Your task to perform on an android device: toggle javascript in the chrome app Image 0: 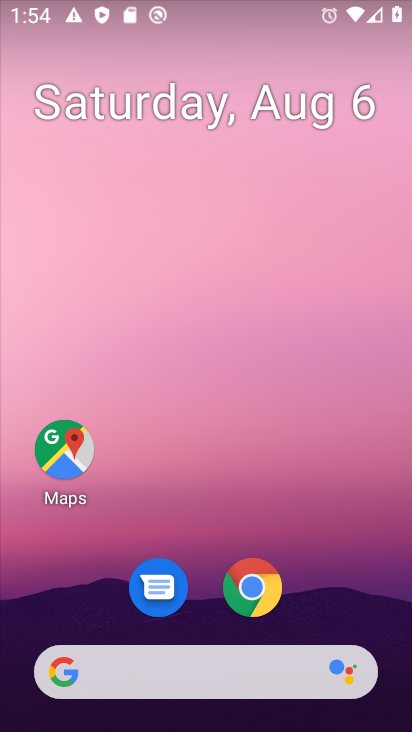
Step 0: click (255, 575)
Your task to perform on an android device: toggle javascript in the chrome app Image 1: 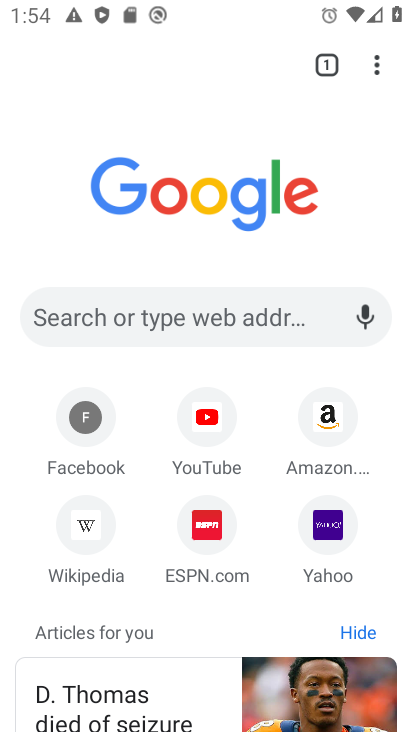
Step 1: click (374, 73)
Your task to perform on an android device: toggle javascript in the chrome app Image 2: 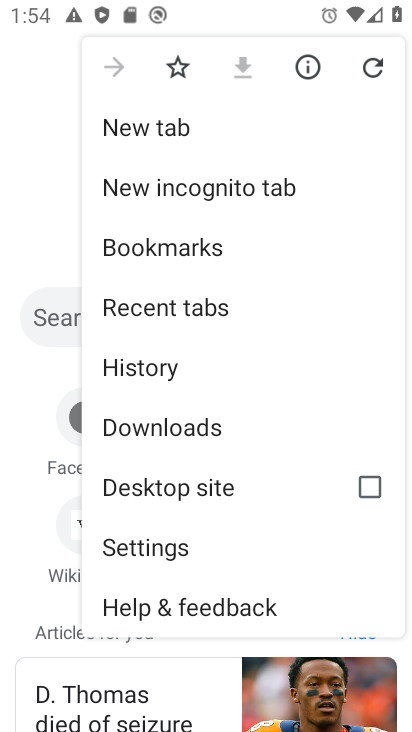
Step 2: click (185, 549)
Your task to perform on an android device: toggle javascript in the chrome app Image 3: 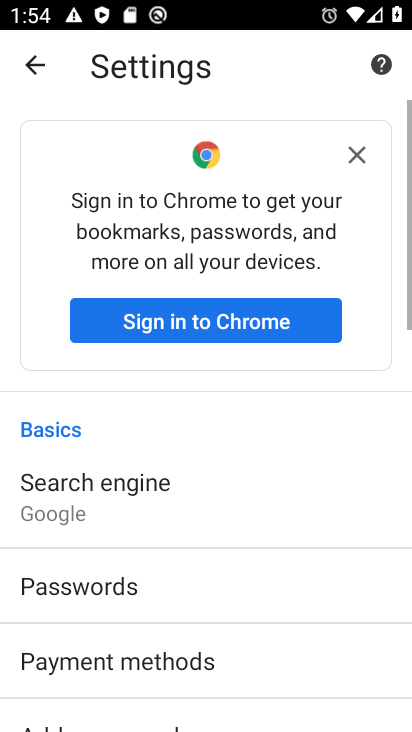
Step 3: drag from (195, 656) to (175, 147)
Your task to perform on an android device: toggle javascript in the chrome app Image 4: 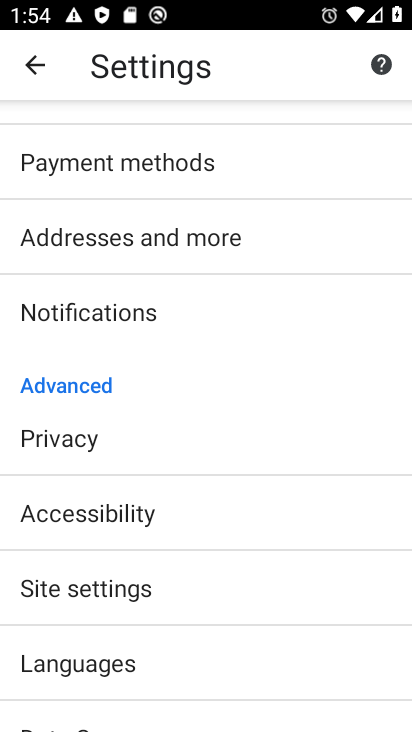
Step 4: click (127, 569)
Your task to perform on an android device: toggle javascript in the chrome app Image 5: 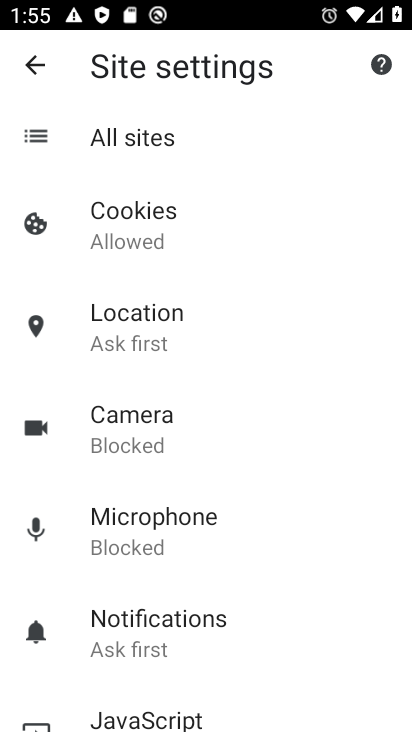
Step 5: drag from (166, 667) to (229, 321)
Your task to perform on an android device: toggle javascript in the chrome app Image 6: 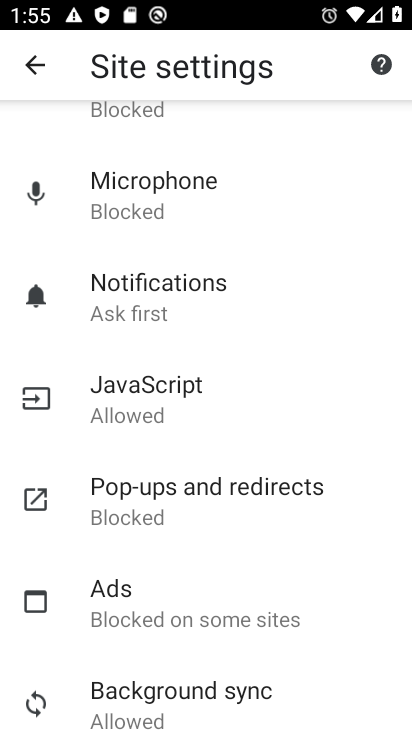
Step 6: click (216, 381)
Your task to perform on an android device: toggle javascript in the chrome app Image 7: 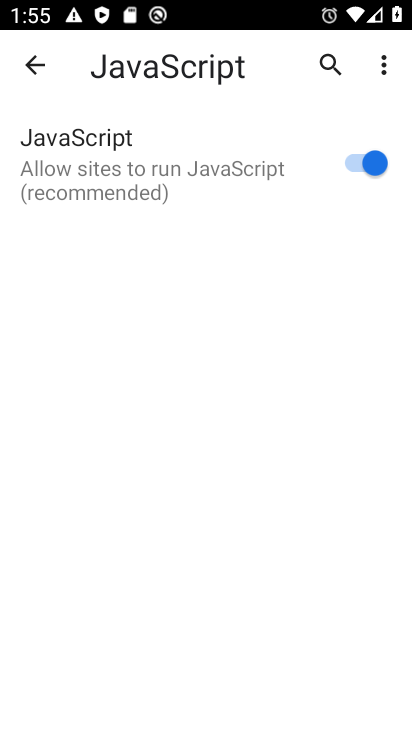
Step 7: click (351, 159)
Your task to perform on an android device: toggle javascript in the chrome app Image 8: 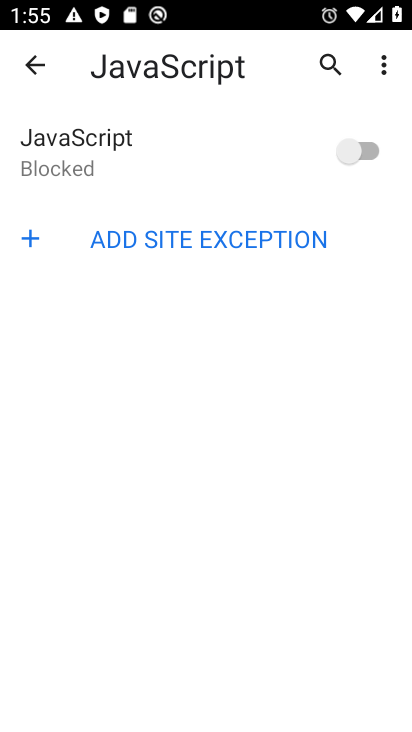
Step 8: task complete